Your task to perform on an android device: turn off data saver in the chrome app Image 0: 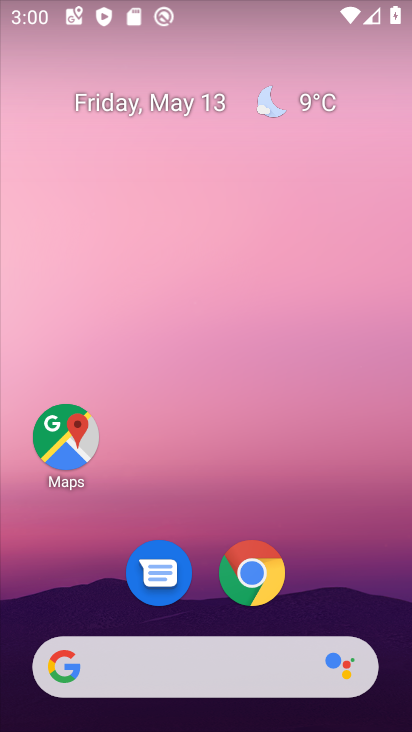
Step 0: click (254, 566)
Your task to perform on an android device: turn off data saver in the chrome app Image 1: 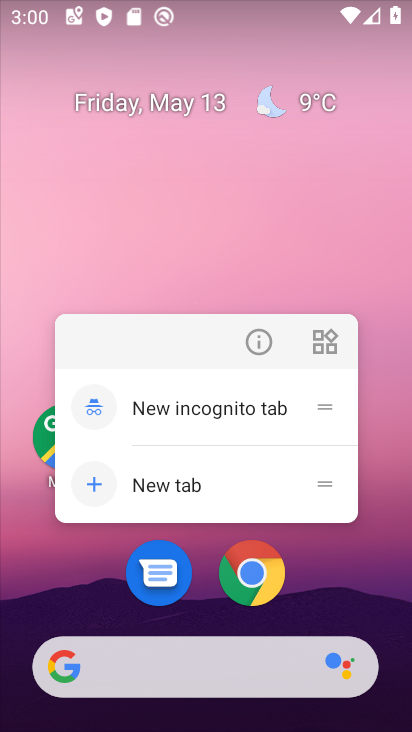
Step 1: click (255, 553)
Your task to perform on an android device: turn off data saver in the chrome app Image 2: 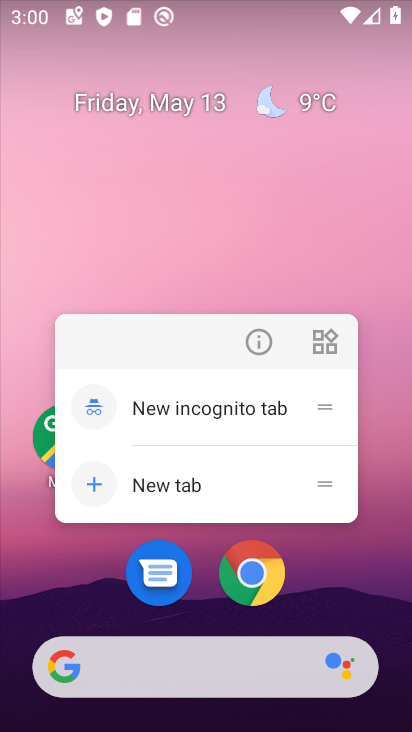
Step 2: click (246, 600)
Your task to perform on an android device: turn off data saver in the chrome app Image 3: 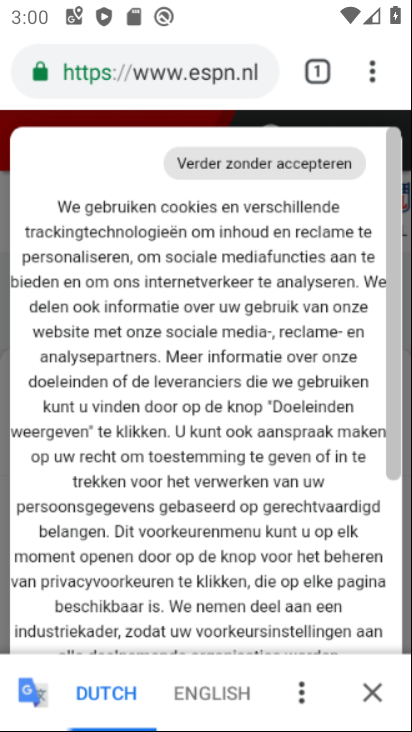
Step 3: drag from (376, 79) to (101, 567)
Your task to perform on an android device: turn off data saver in the chrome app Image 4: 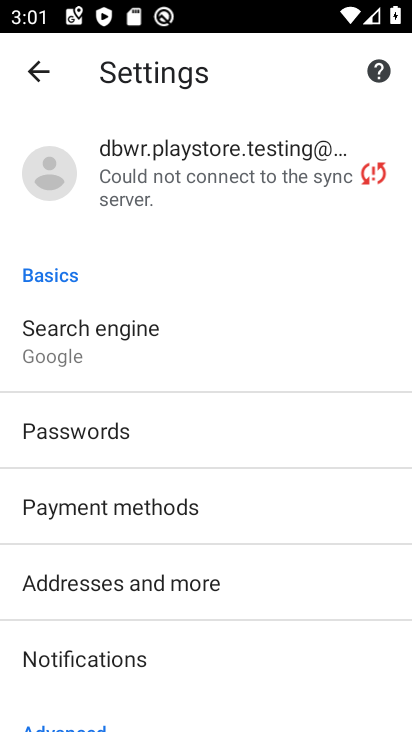
Step 4: drag from (139, 618) to (234, 202)
Your task to perform on an android device: turn off data saver in the chrome app Image 5: 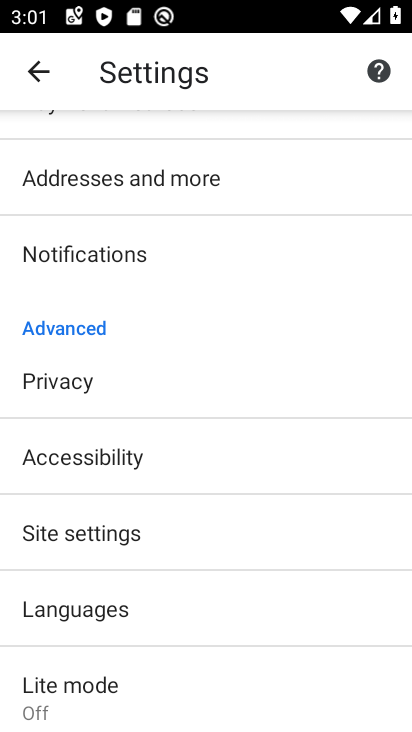
Step 5: click (91, 690)
Your task to perform on an android device: turn off data saver in the chrome app Image 6: 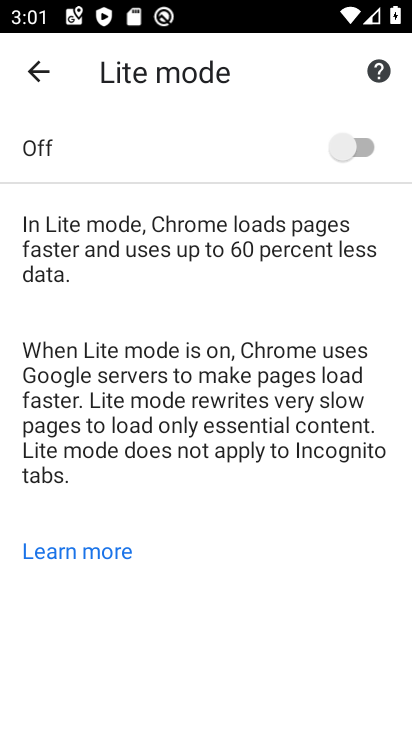
Step 6: task complete